Your task to perform on an android device: find snoozed emails in the gmail app Image 0: 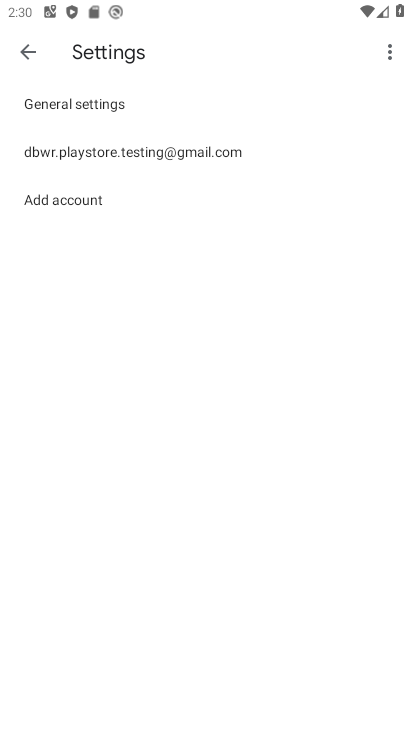
Step 0: click (171, 145)
Your task to perform on an android device: find snoozed emails in the gmail app Image 1: 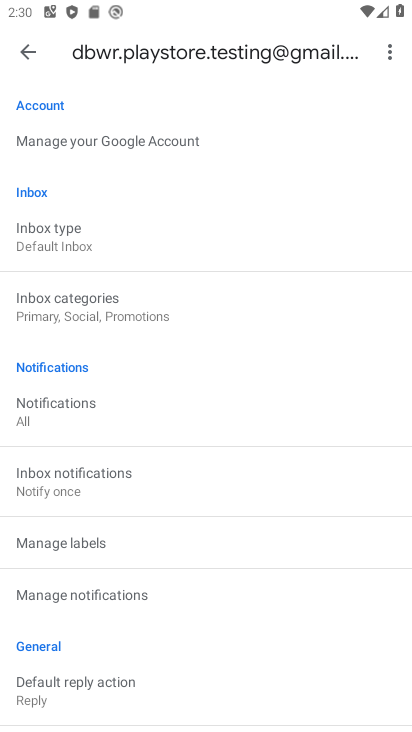
Step 1: press back button
Your task to perform on an android device: find snoozed emails in the gmail app Image 2: 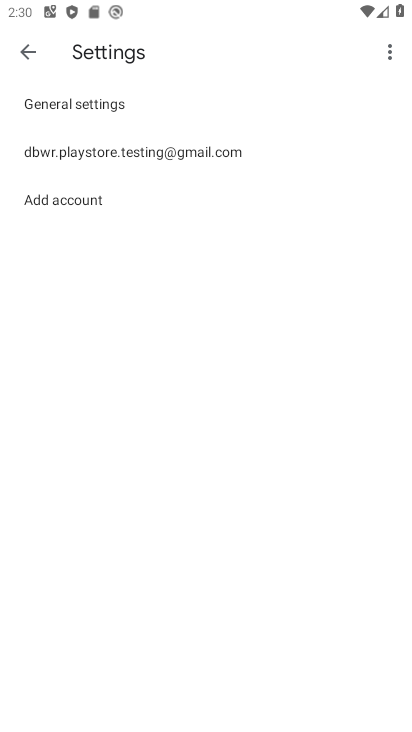
Step 2: press back button
Your task to perform on an android device: find snoozed emails in the gmail app Image 3: 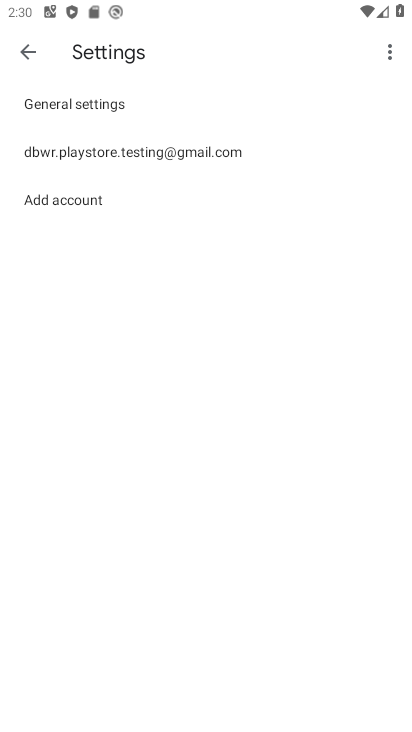
Step 3: press back button
Your task to perform on an android device: find snoozed emails in the gmail app Image 4: 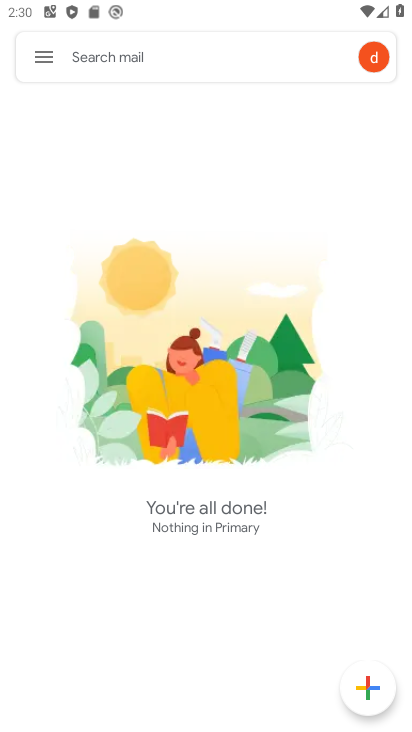
Step 4: click (26, 62)
Your task to perform on an android device: find snoozed emails in the gmail app Image 5: 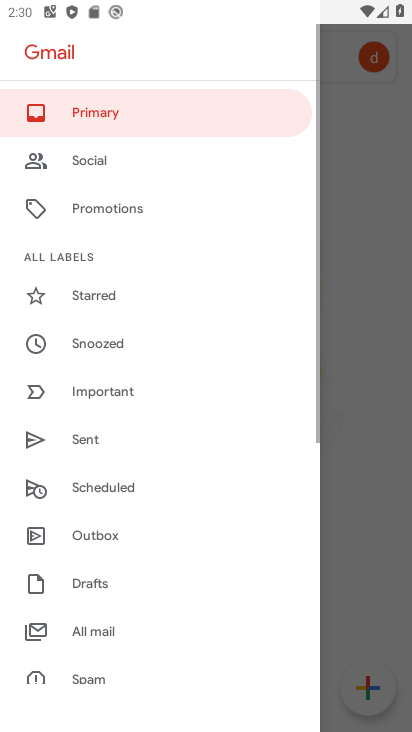
Step 5: click (129, 352)
Your task to perform on an android device: find snoozed emails in the gmail app Image 6: 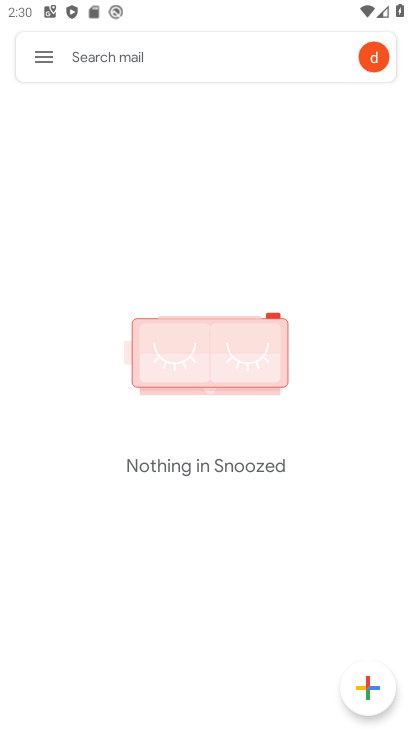
Step 6: task complete